Your task to perform on an android device: see creations saved in the google photos Image 0: 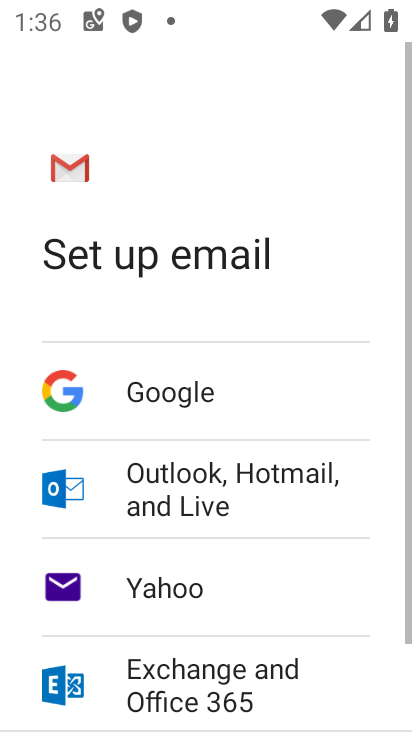
Step 0: press home button
Your task to perform on an android device: see creations saved in the google photos Image 1: 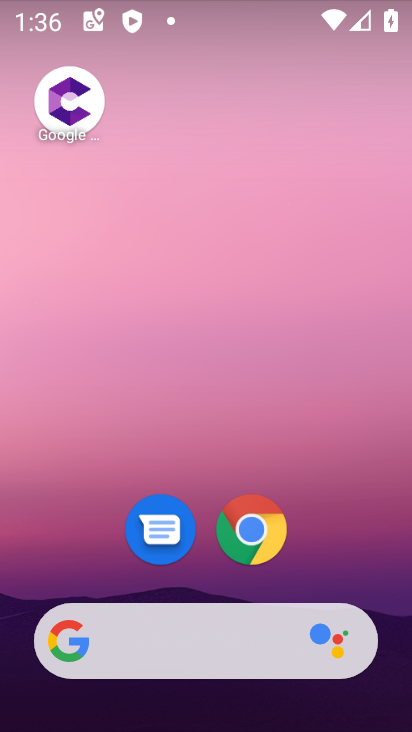
Step 1: drag from (119, 605) to (226, 86)
Your task to perform on an android device: see creations saved in the google photos Image 2: 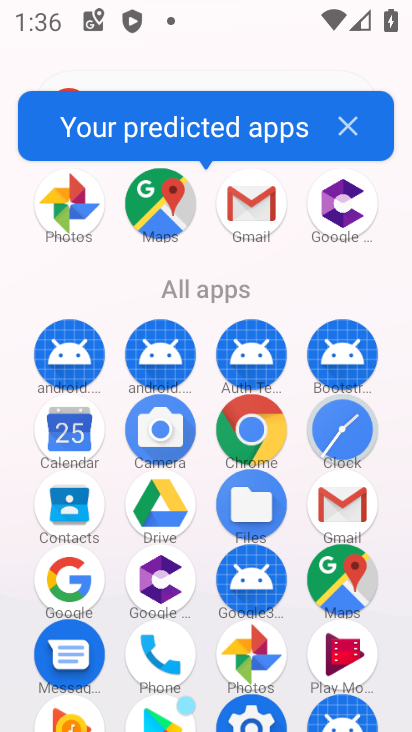
Step 2: click (267, 640)
Your task to perform on an android device: see creations saved in the google photos Image 3: 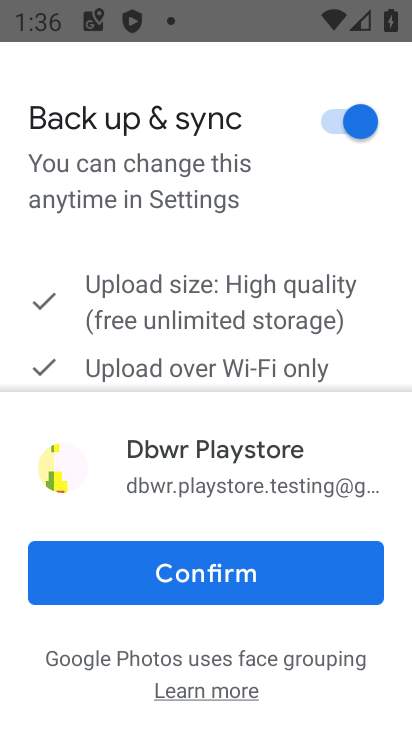
Step 3: click (203, 570)
Your task to perform on an android device: see creations saved in the google photos Image 4: 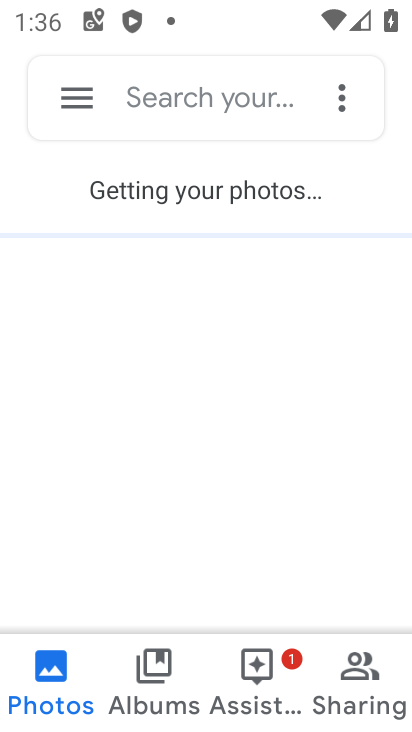
Step 4: click (219, 105)
Your task to perform on an android device: see creations saved in the google photos Image 5: 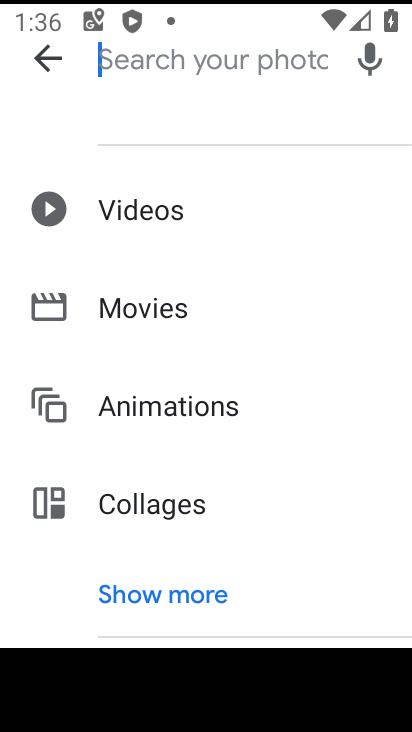
Step 5: click (130, 596)
Your task to perform on an android device: see creations saved in the google photos Image 6: 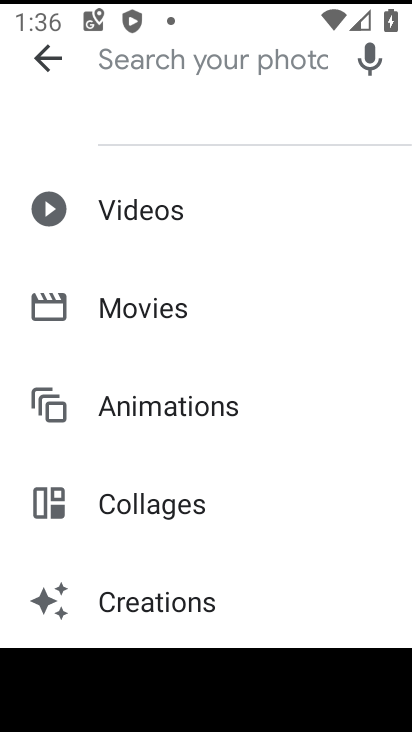
Step 6: drag from (130, 596) to (189, 269)
Your task to perform on an android device: see creations saved in the google photos Image 7: 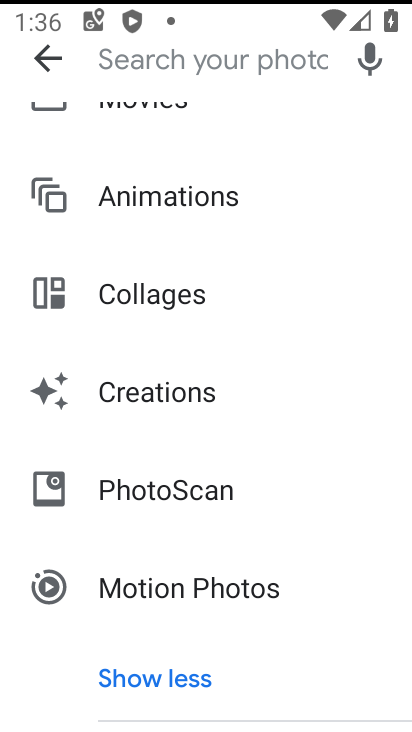
Step 7: click (146, 391)
Your task to perform on an android device: see creations saved in the google photos Image 8: 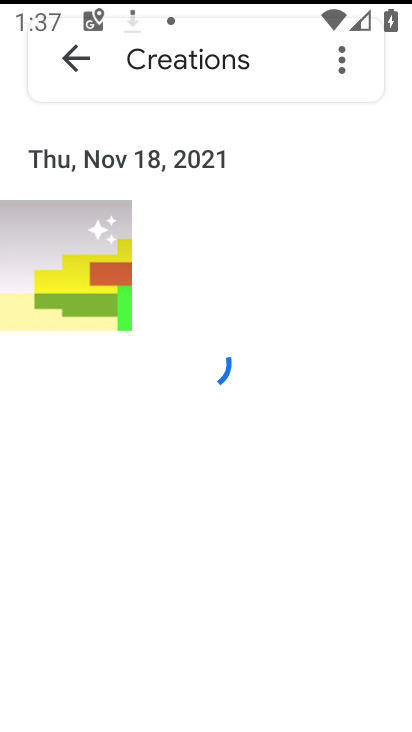
Step 8: task complete